Your task to perform on an android device: Go to Google Image 0: 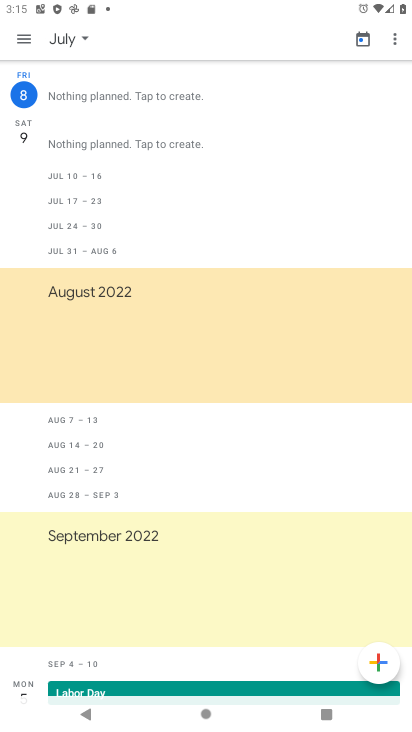
Step 0: press home button
Your task to perform on an android device: Go to Google Image 1: 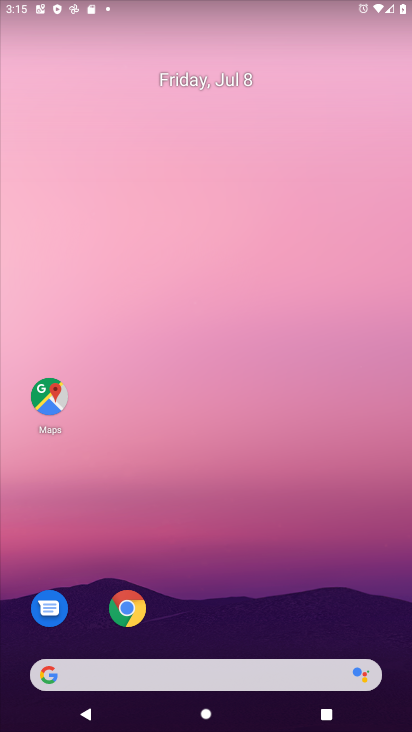
Step 1: drag from (233, 660) to (228, 270)
Your task to perform on an android device: Go to Google Image 2: 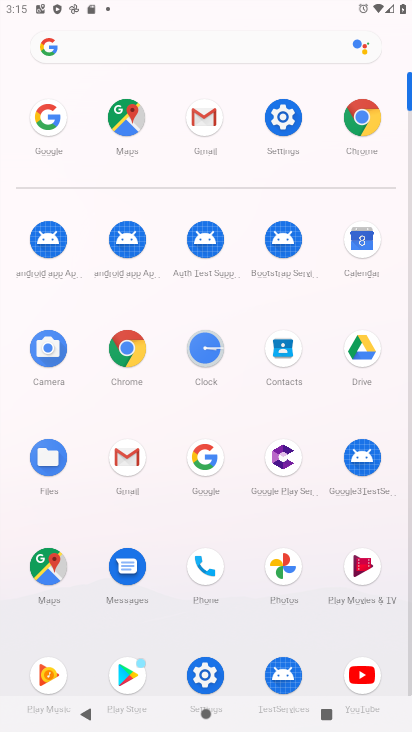
Step 2: click (212, 454)
Your task to perform on an android device: Go to Google Image 3: 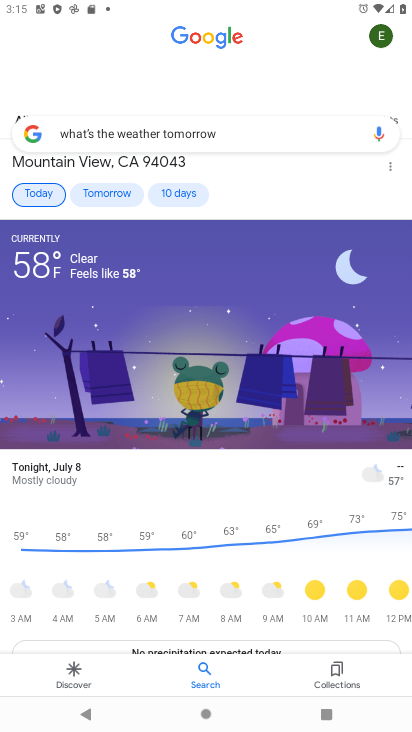
Step 3: task complete